Your task to perform on an android device: allow notifications from all sites in the chrome app Image 0: 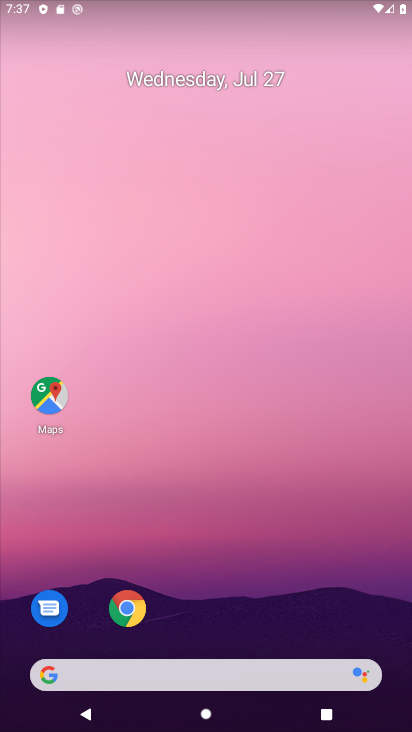
Step 0: drag from (263, 479) to (209, 182)
Your task to perform on an android device: allow notifications from all sites in the chrome app Image 1: 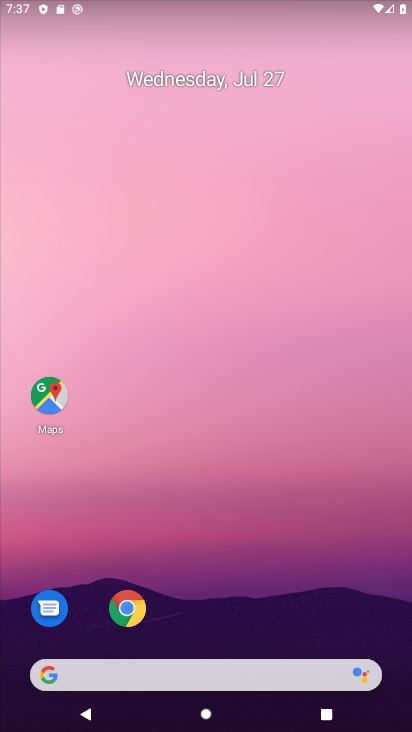
Step 1: drag from (273, 629) to (212, 44)
Your task to perform on an android device: allow notifications from all sites in the chrome app Image 2: 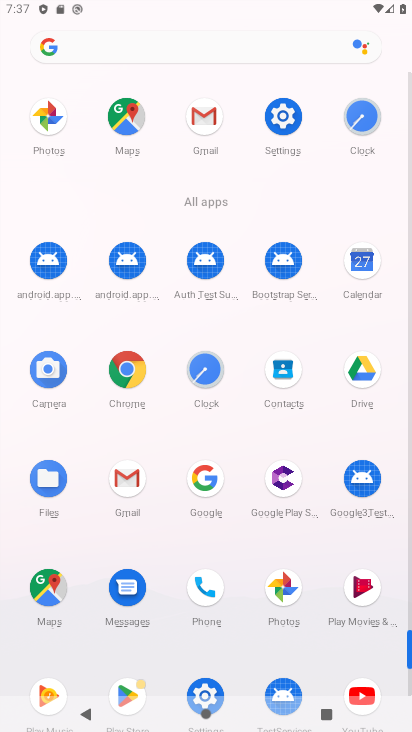
Step 2: click (281, 123)
Your task to perform on an android device: allow notifications from all sites in the chrome app Image 3: 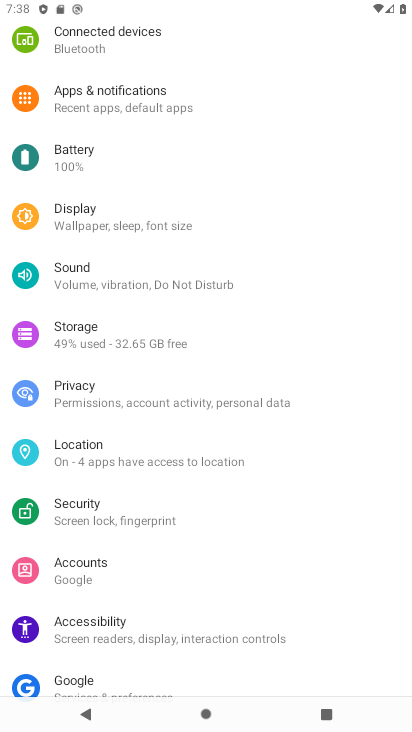
Step 3: press home button
Your task to perform on an android device: allow notifications from all sites in the chrome app Image 4: 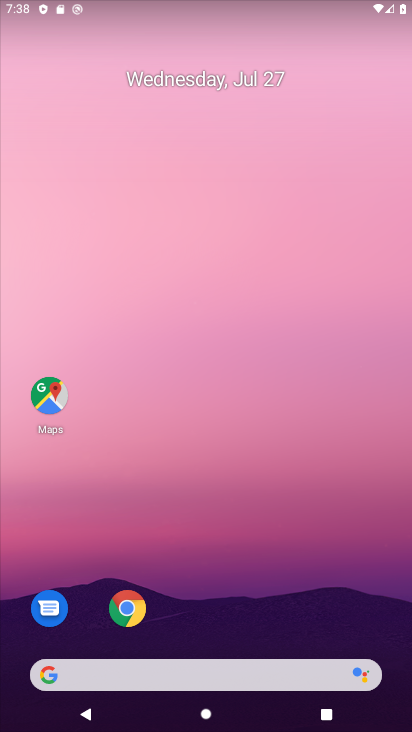
Step 4: drag from (305, 578) to (362, 184)
Your task to perform on an android device: allow notifications from all sites in the chrome app Image 5: 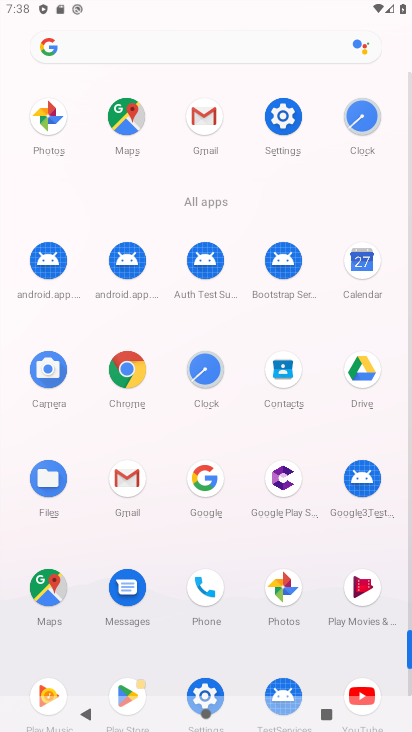
Step 5: click (125, 357)
Your task to perform on an android device: allow notifications from all sites in the chrome app Image 6: 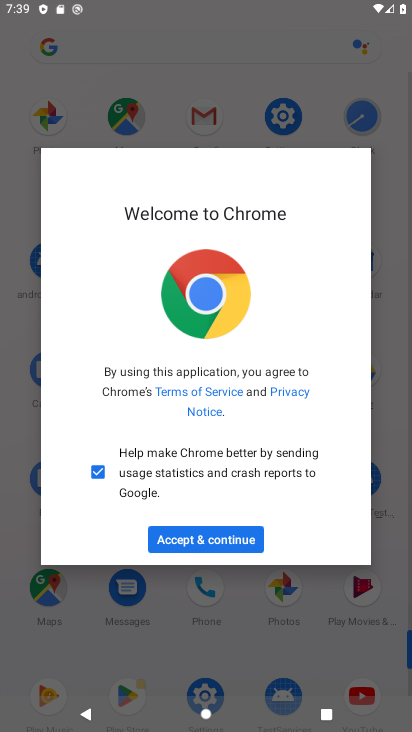
Step 6: click (203, 547)
Your task to perform on an android device: allow notifications from all sites in the chrome app Image 7: 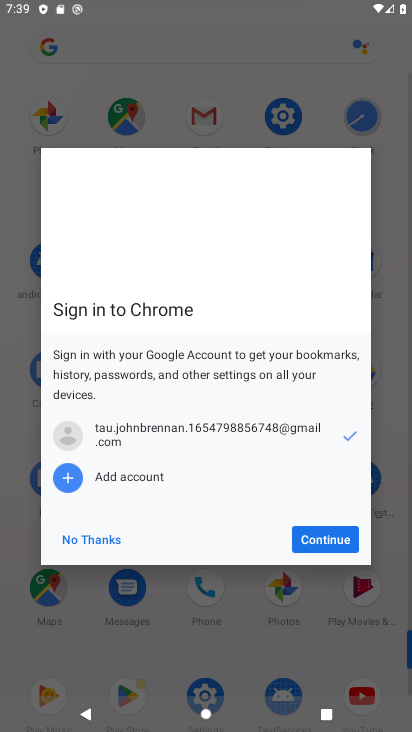
Step 7: click (314, 550)
Your task to perform on an android device: allow notifications from all sites in the chrome app Image 8: 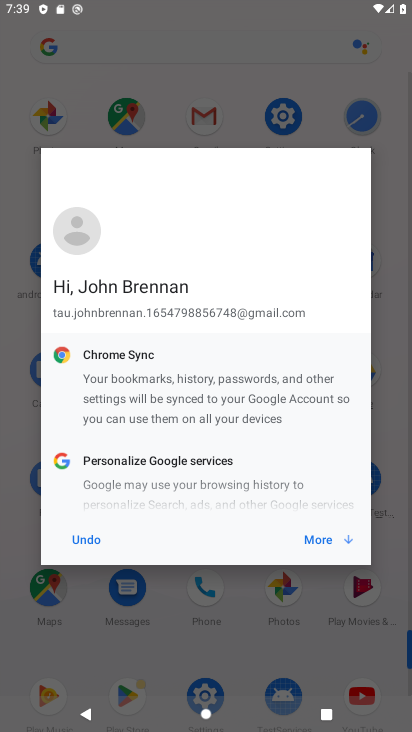
Step 8: click (325, 542)
Your task to perform on an android device: allow notifications from all sites in the chrome app Image 9: 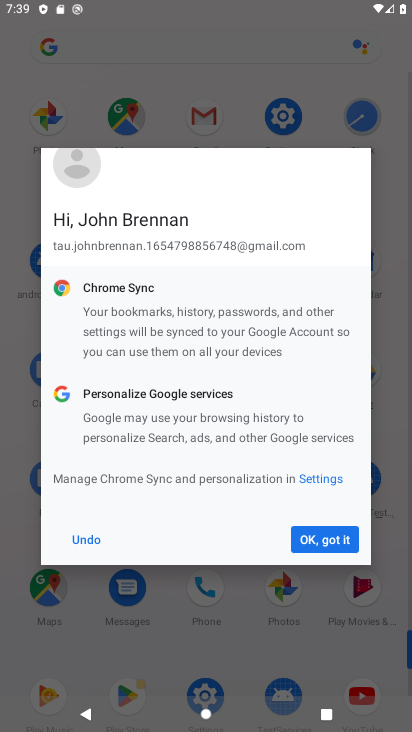
Step 9: click (305, 544)
Your task to perform on an android device: allow notifications from all sites in the chrome app Image 10: 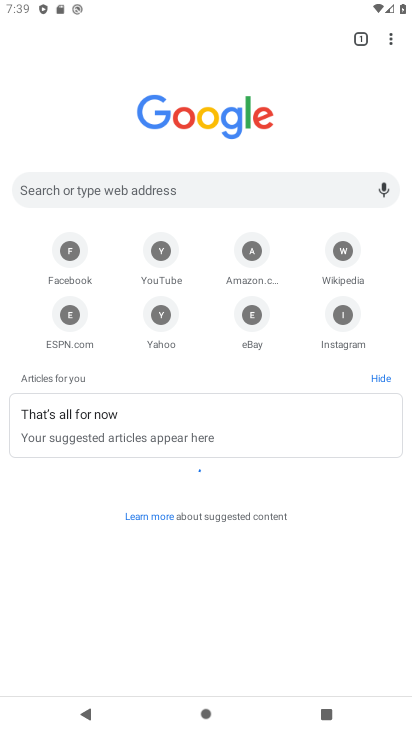
Step 10: task complete